Your task to perform on an android device: Look up the best selling patio furniture on Home Depot Image 0: 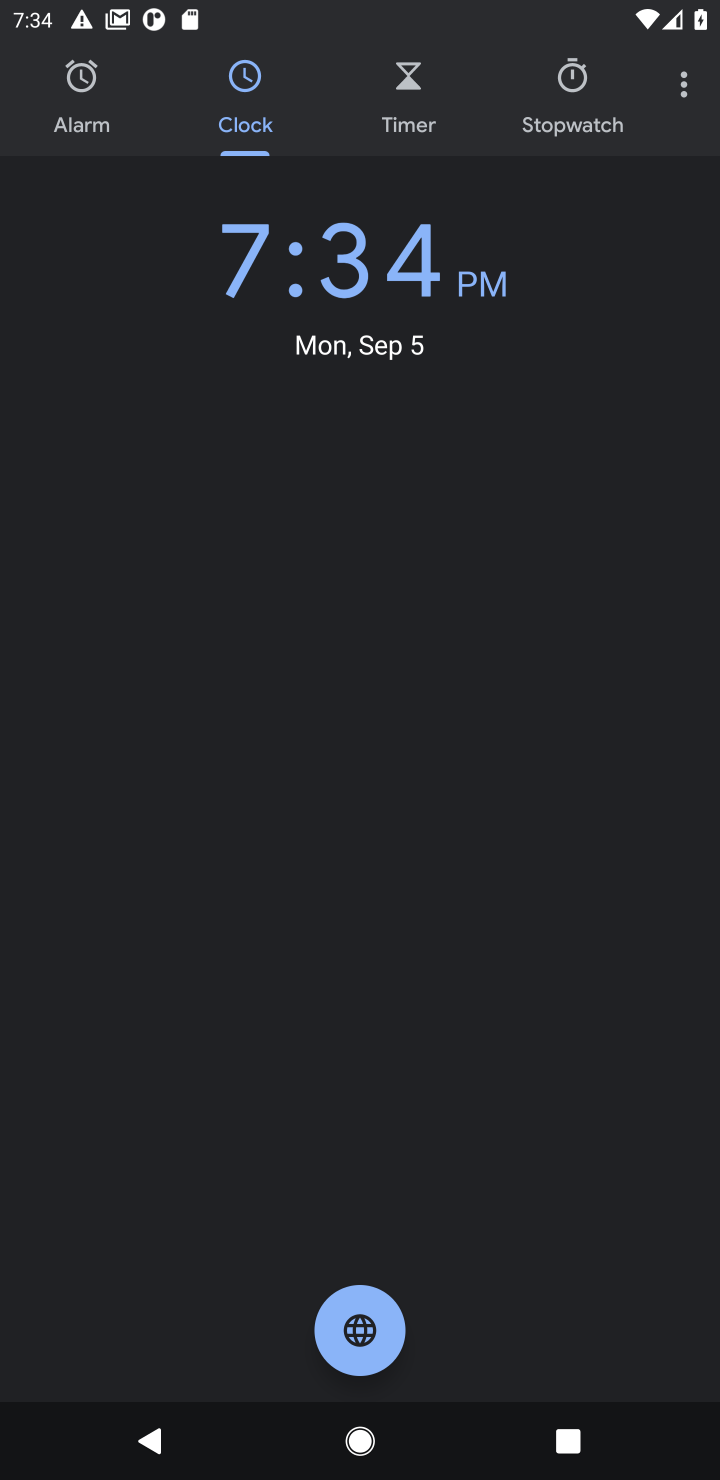
Step 0: press home button
Your task to perform on an android device: Look up the best selling patio furniture on Home Depot Image 1: 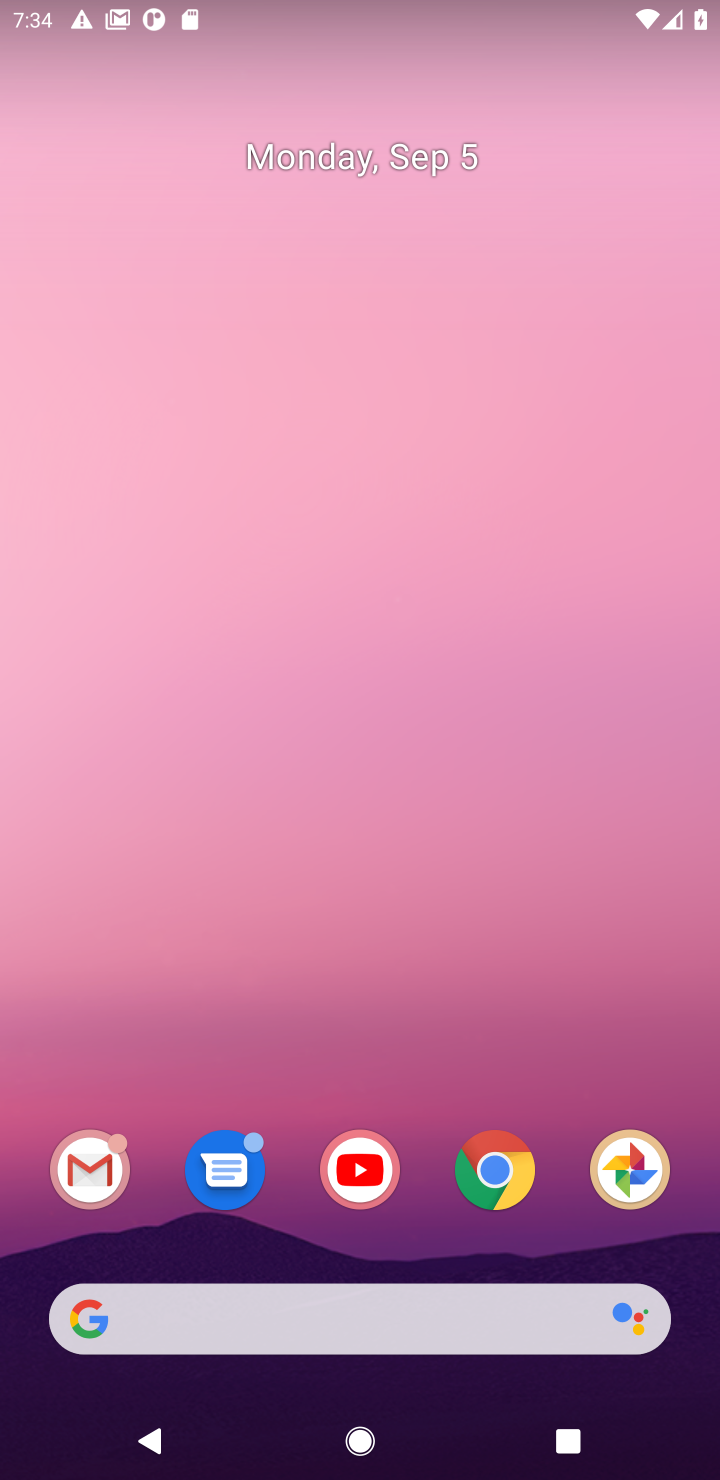
Step 1: click (520, 1167)
Your task to perform on an android device: Look up the best selling patio furniture on Home Depot Image 2: 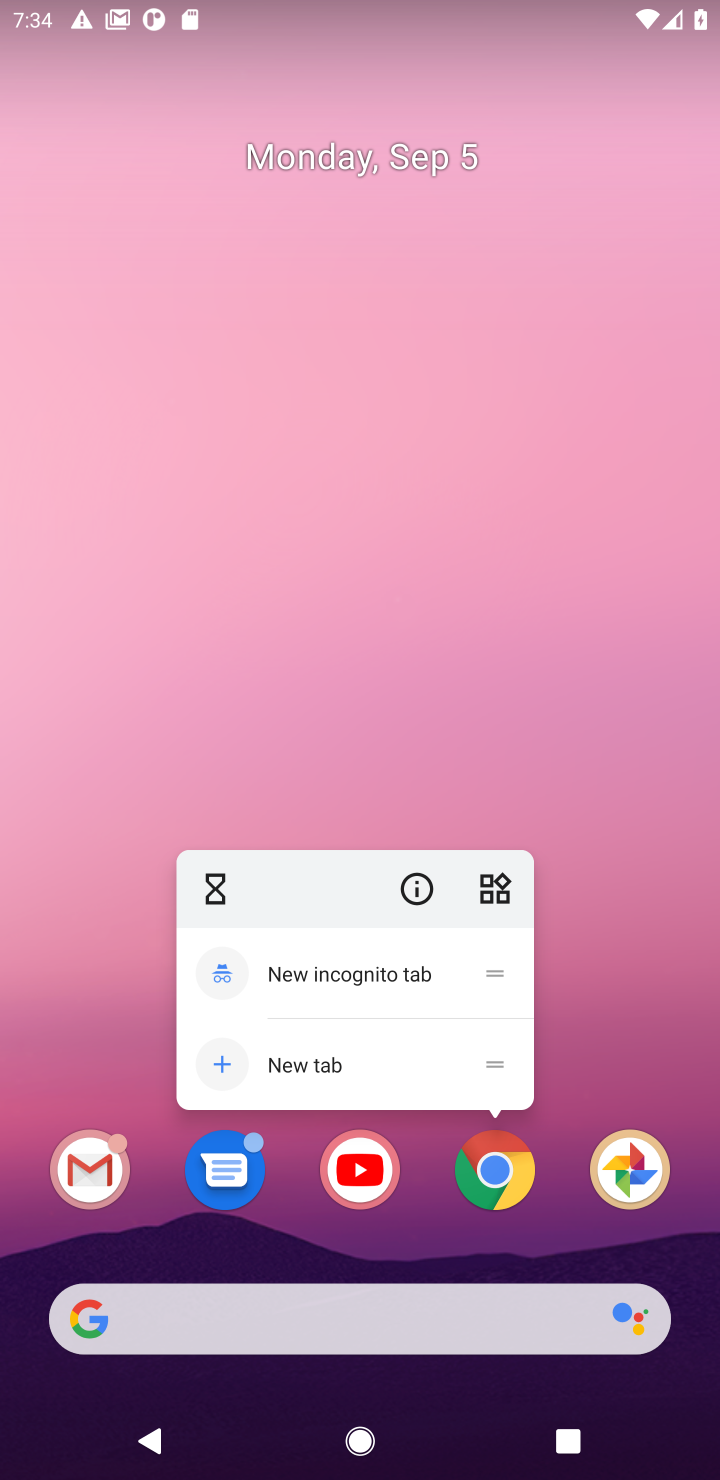
Step 2: click (485, 1183)
Your task to perform on an android device: Look up the best selling patio furniture on Home Depot Image 3: 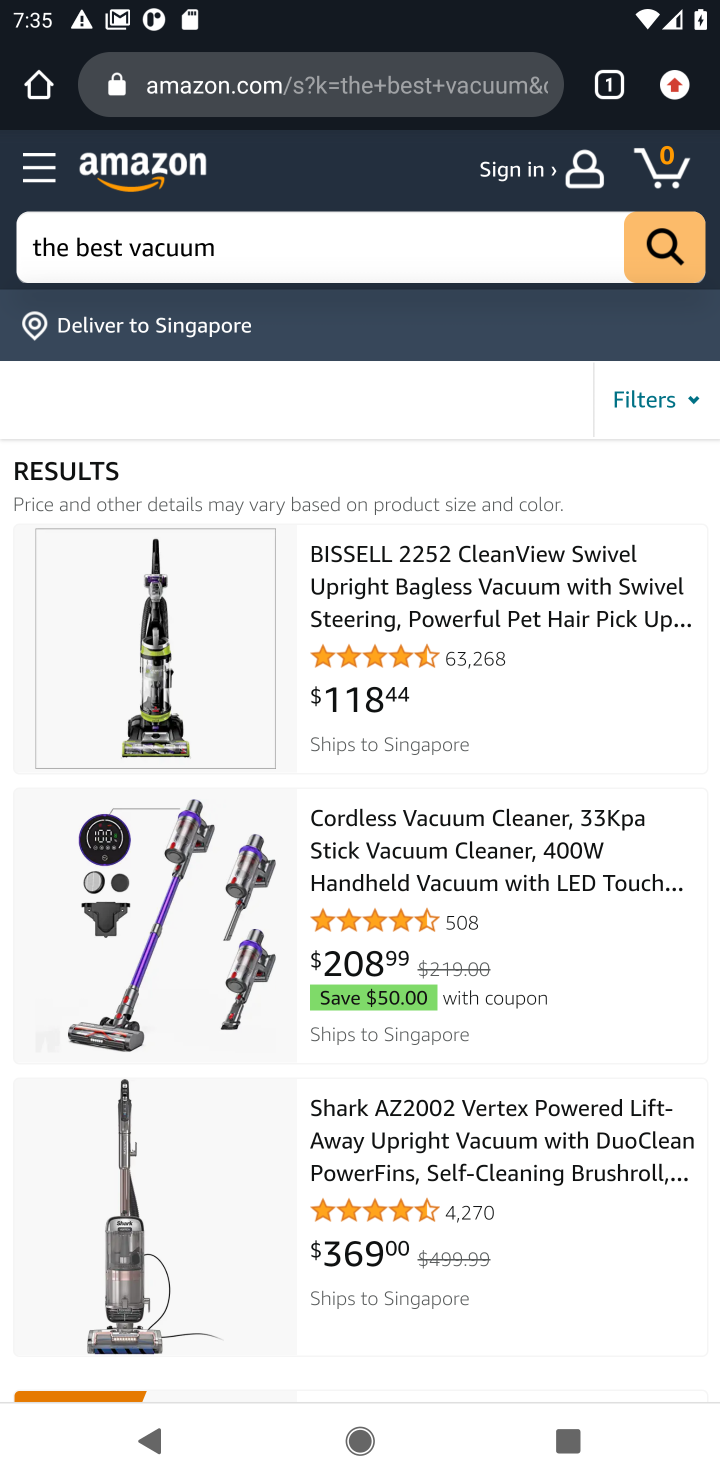
Step 3: click (345, 93)
Your task to perform on an android device: Look up the best selling patio furniture on Home Depot Image 4: 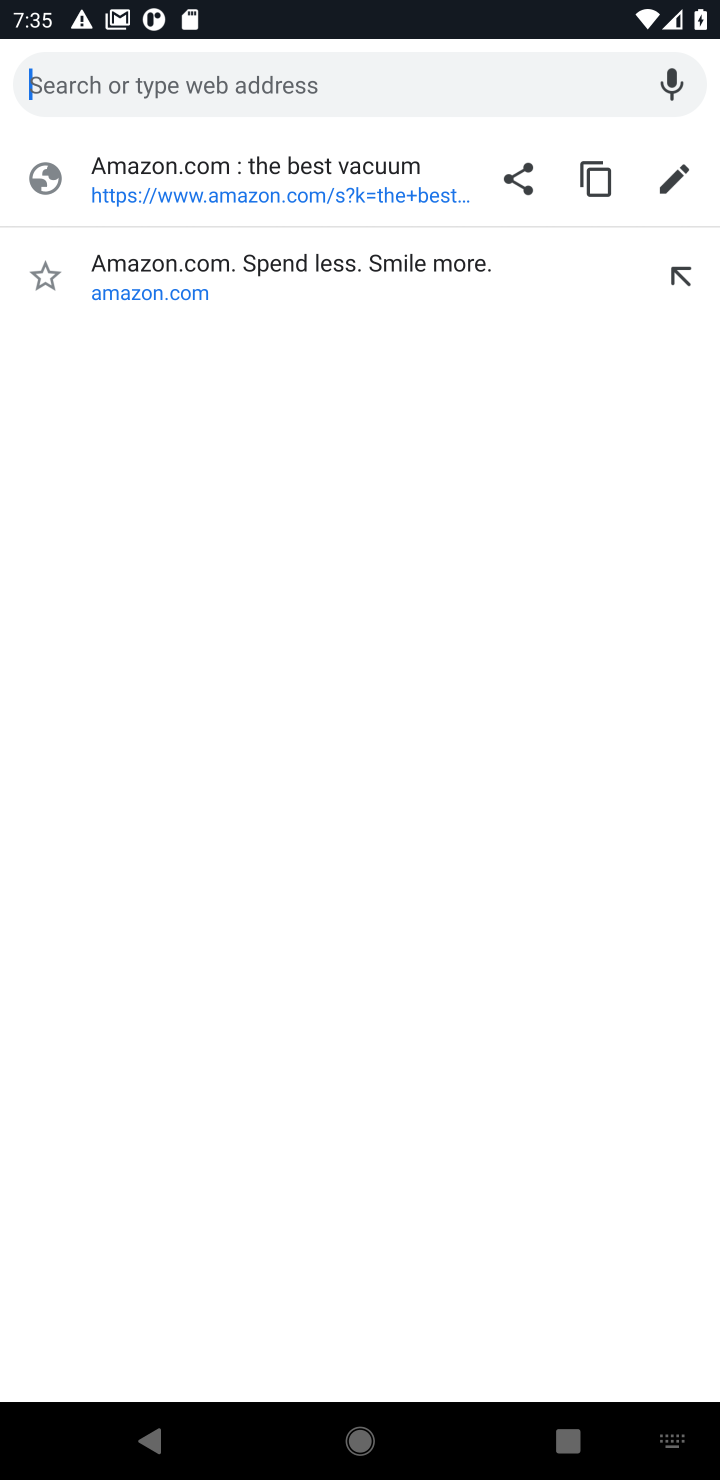
Step 4: type "homedepot"
Your task to perform on an android device: Look up the best selling patio furniture on Home Depot Image 5: 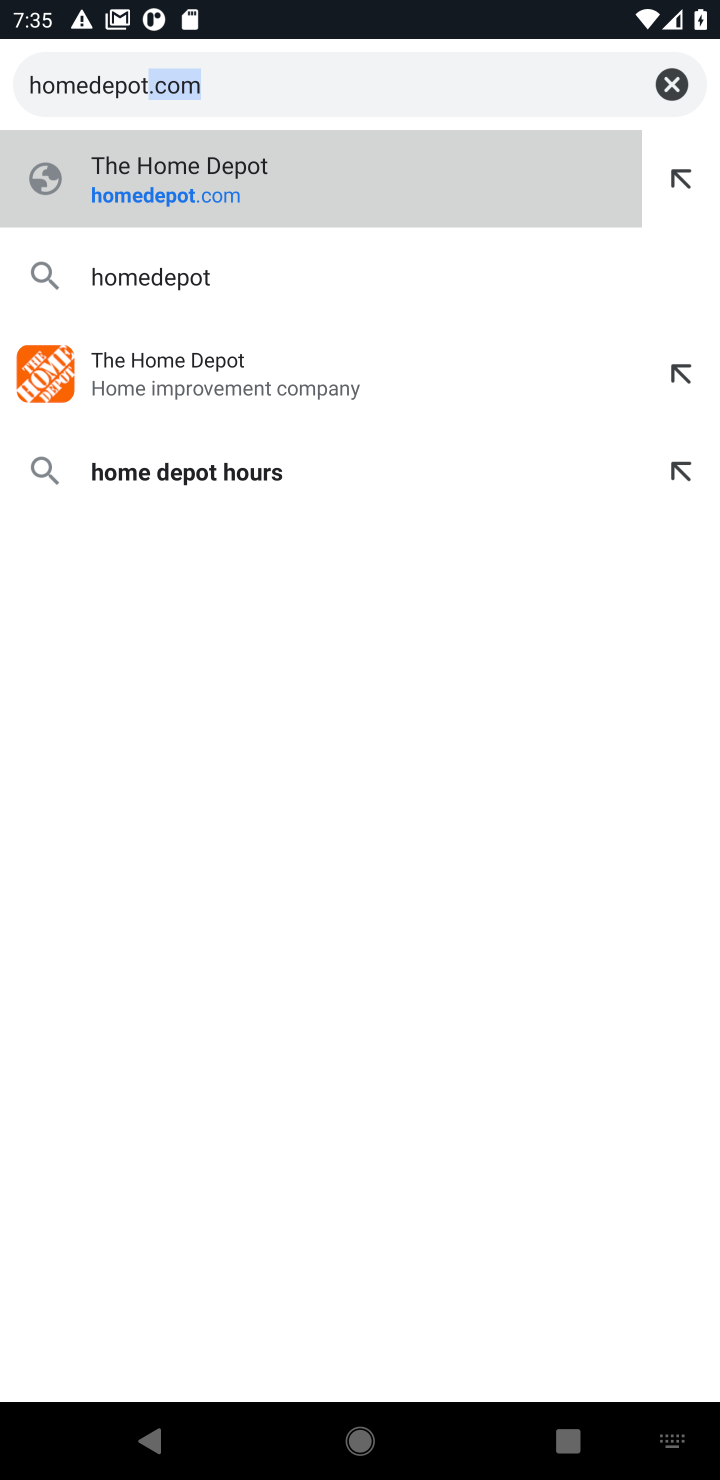
Step 5: click (165, 388)
Your task to perform on an android device: Look up the best selling patio furniture on Home Depot Image 6: 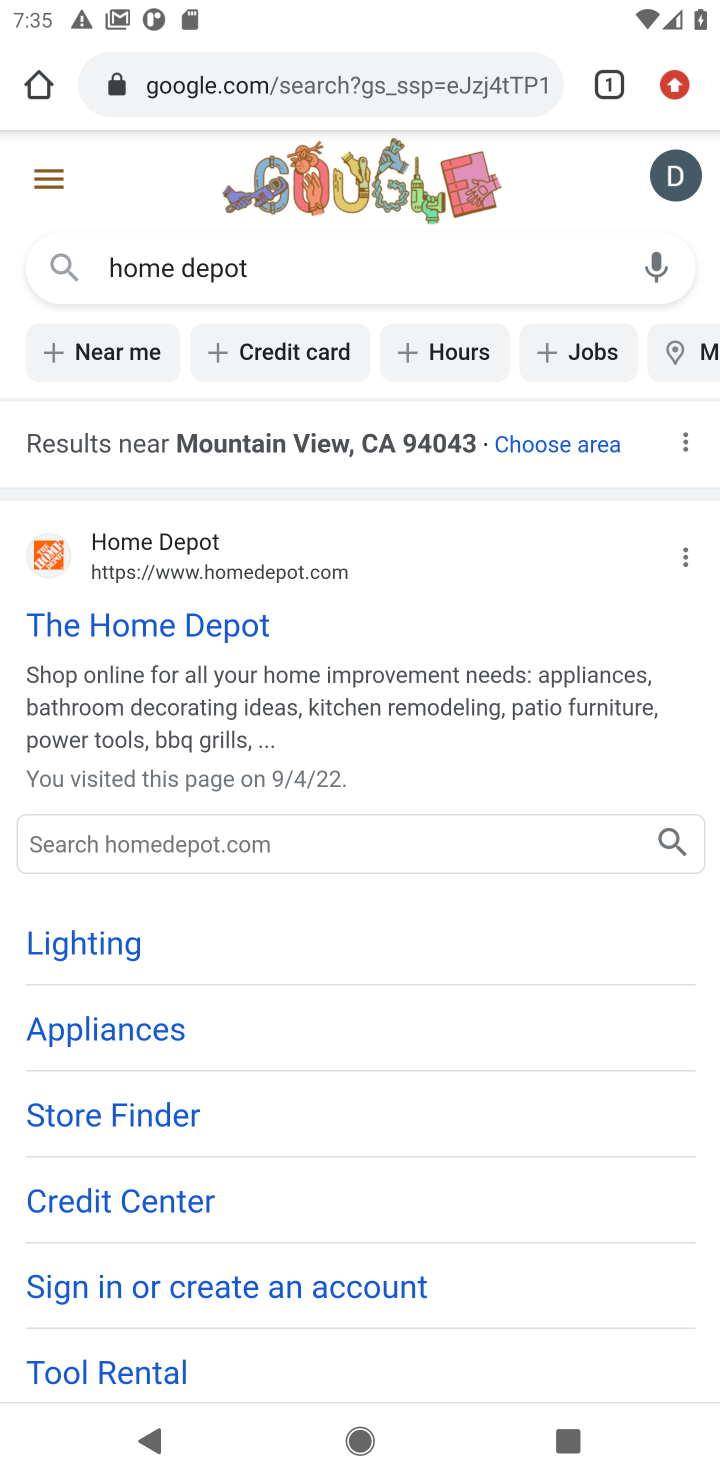
Step 6: click (165, 643)
Your task to perform on an android device: Look up the best selling patio furniture on Home Depot Image 7: 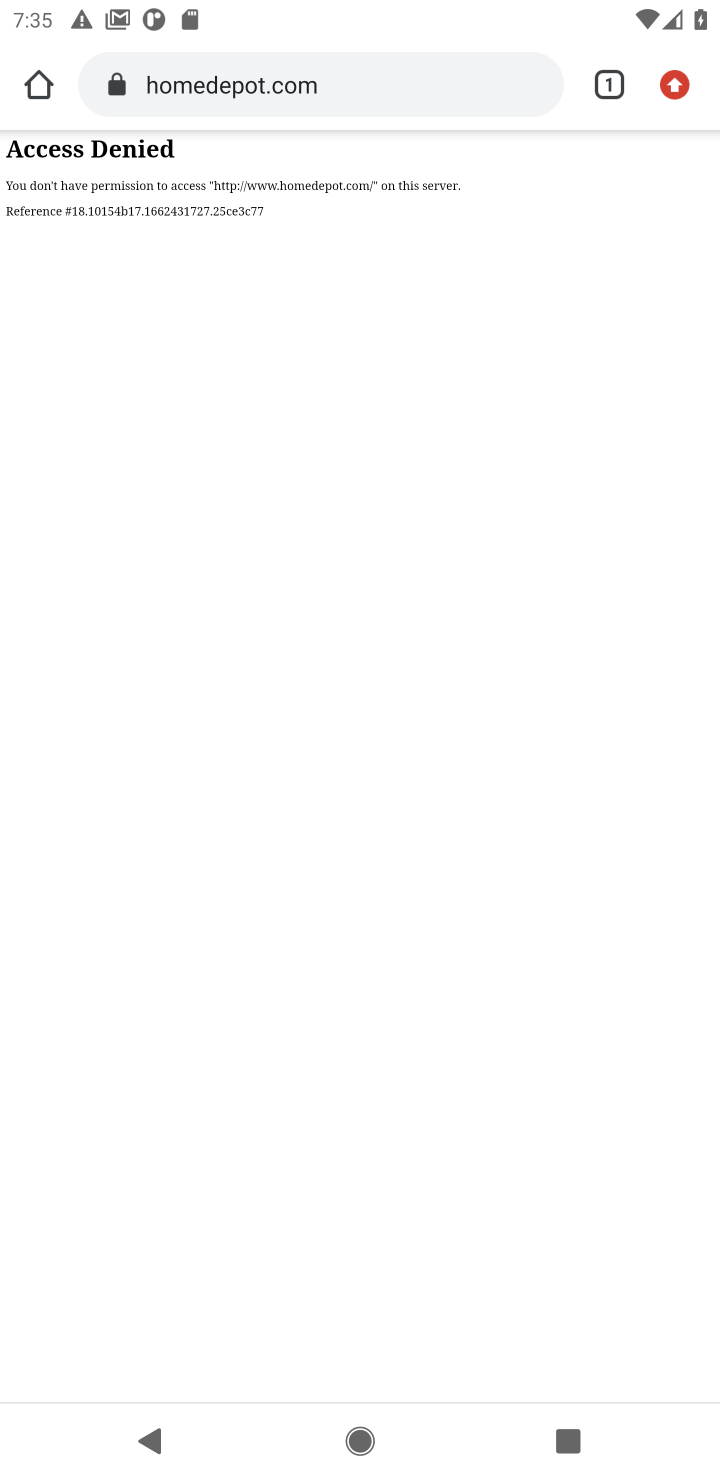
Step 7: task complete